Your task to perform on an android device: toggle notifications settings in the gmail app Image 0: 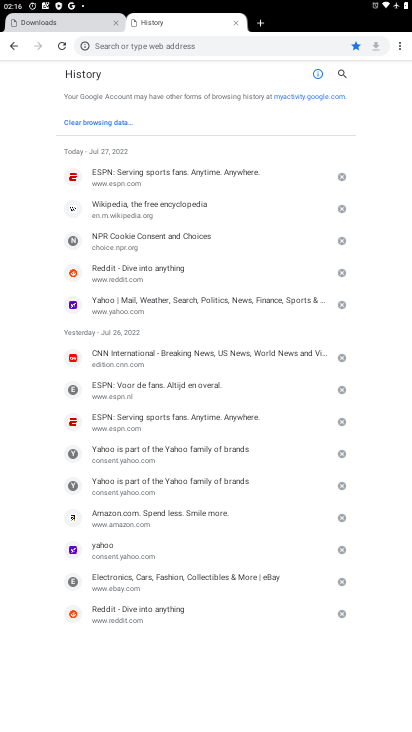
Step 0: press home button
Your task to perform on an android device: toggle notifications settings in the gmail app Image 1: 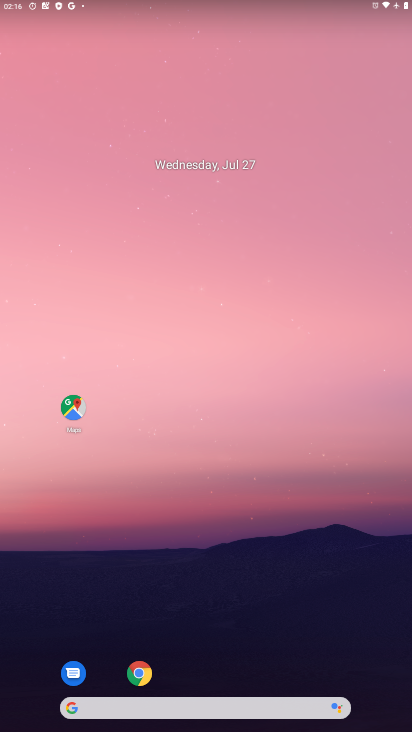
Step 1: drag from (226, 613) to (194, 107)
Your task to perform on an android device: toggle notifications settings in the gmail app Image 2: 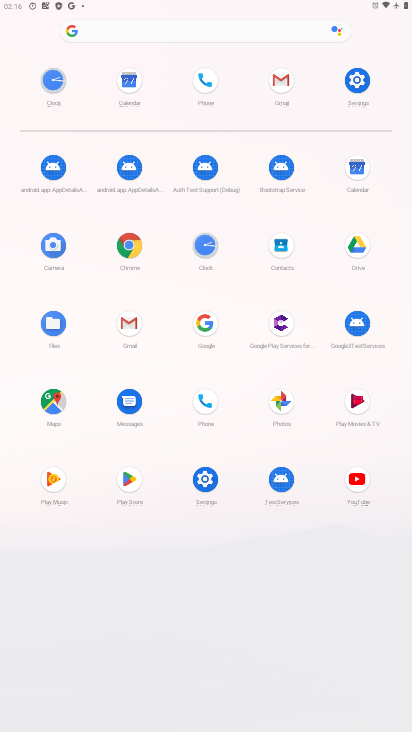
Step 2: click (278, 82)
Your task to perform on an android device: toggle notifications settings in the gmail app Image 3: 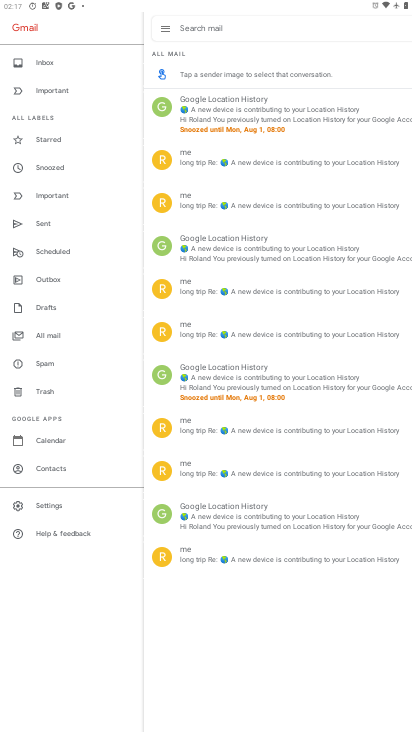
Step 3: click (55, 506)
Your task to perform on an android device: toggle notifications settings in the gmail app Image 4: 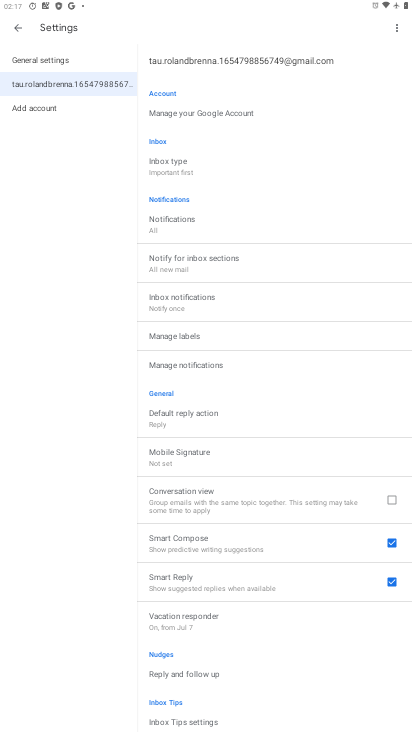
Step 4: click (66, 66)
Your task to perform on an android device: toggle notifications settings in the gmail app Image 5: 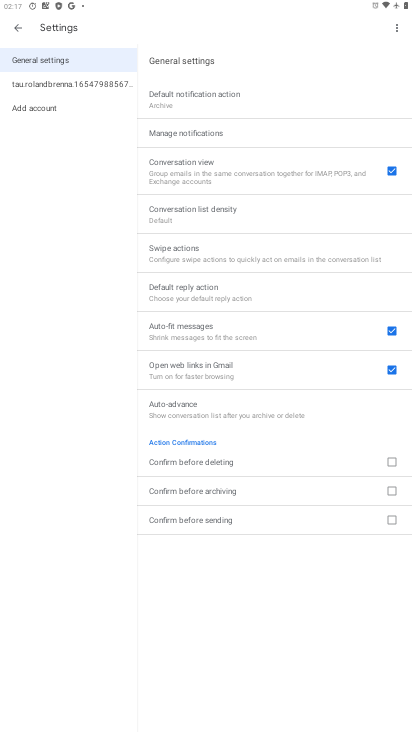
Step 5: click (176, 134)
Your task to perform on an android device: toggle notifications settings in the gmail app Image 6: 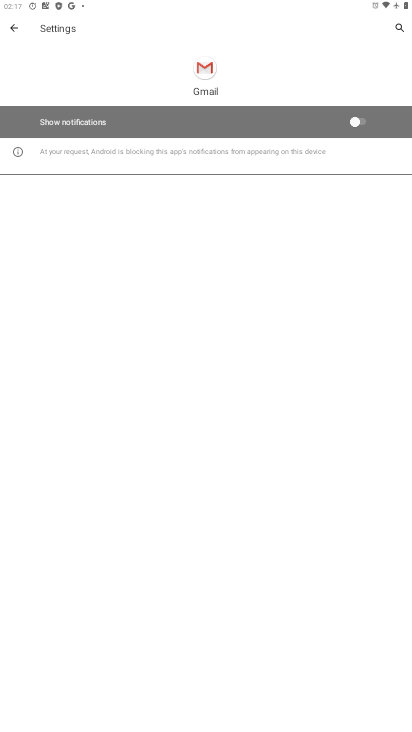
Step 6: click (346, 125)
Your task to perform on an android device: toggle notifications settings in the gmail app Image 7: 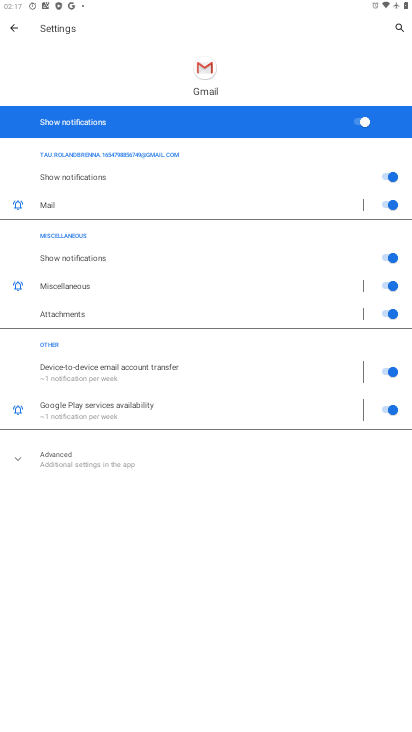
Step 7: task complete